Your task to perform on an android device: open app "Venmo" (install if not already installed) and go to login screen Image 0: 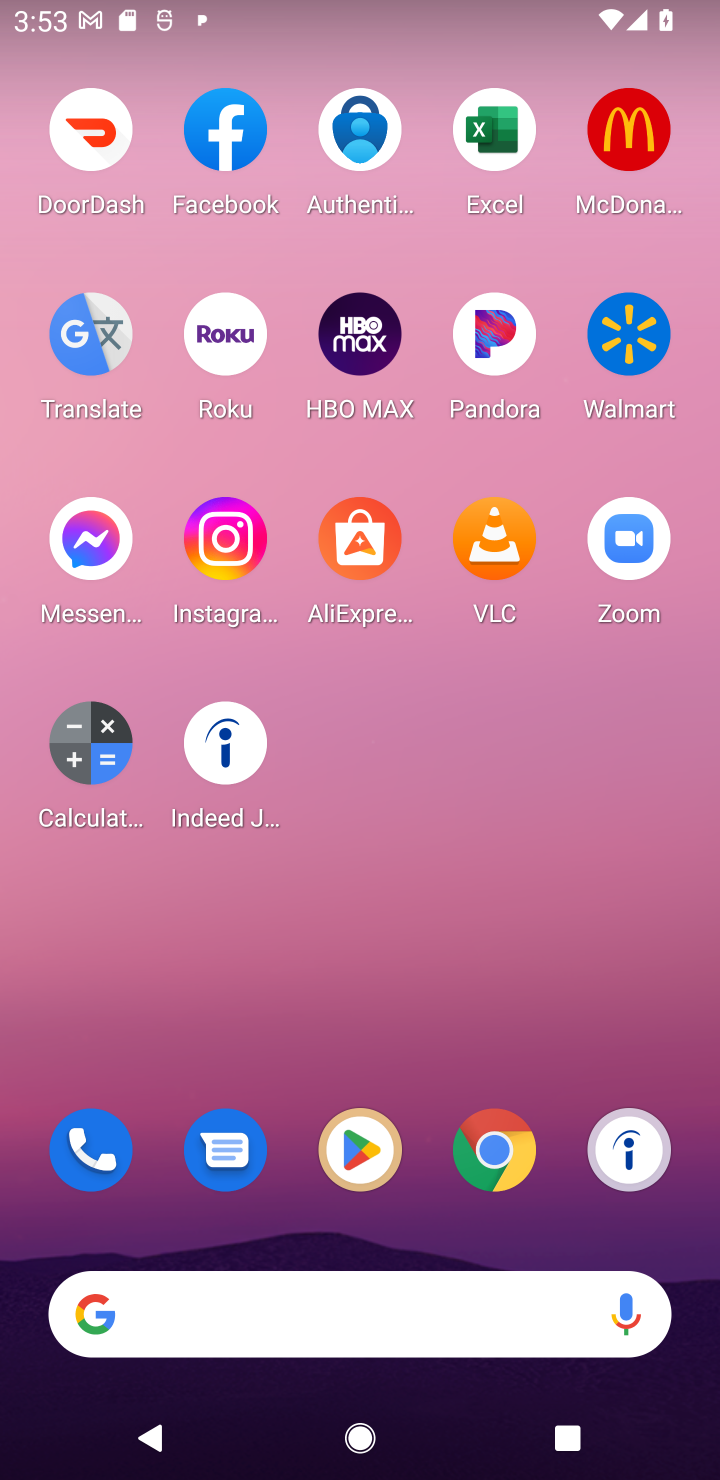
Step 0: click (366, 1146)
Your task to perform on an android device: open app "Venmo" (install if not already installed) and go to login screen Image 1: 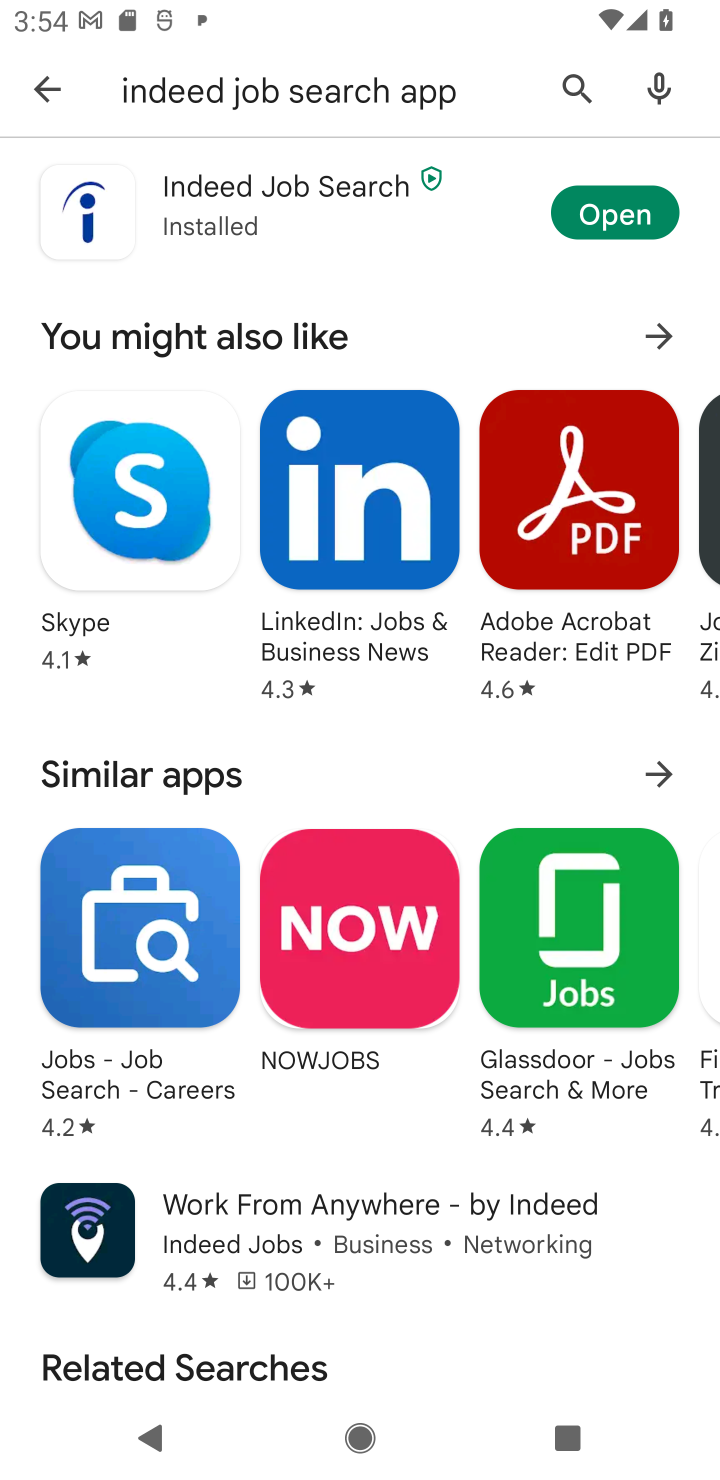
Step 1: click (566, 78)
Your task to perform on an android device: open app "Venmo" (install if not already installed) and go to login screen Image 2: 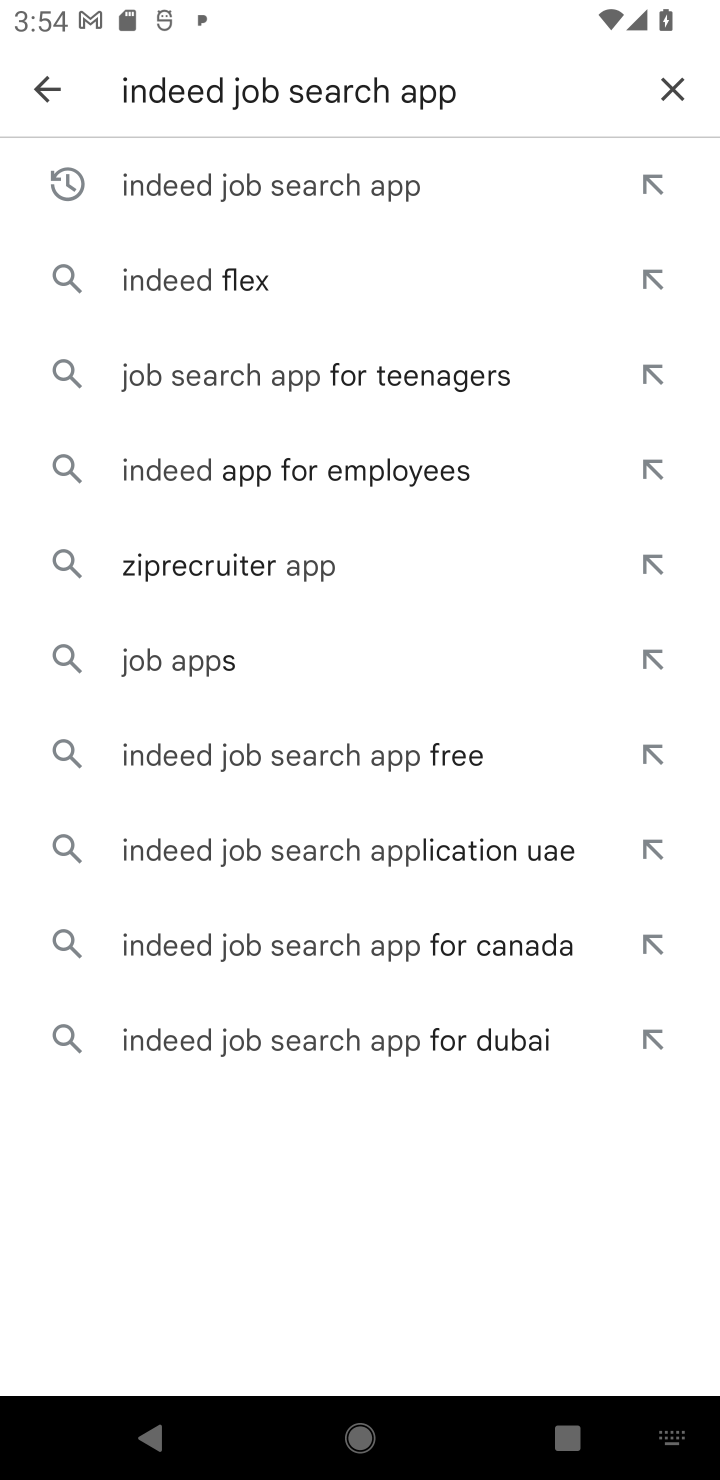
Step 2: click (673, 87)
Your task to perform on an android device: open app "Venmo" (install if not already installed) and go to login screen Image 3: 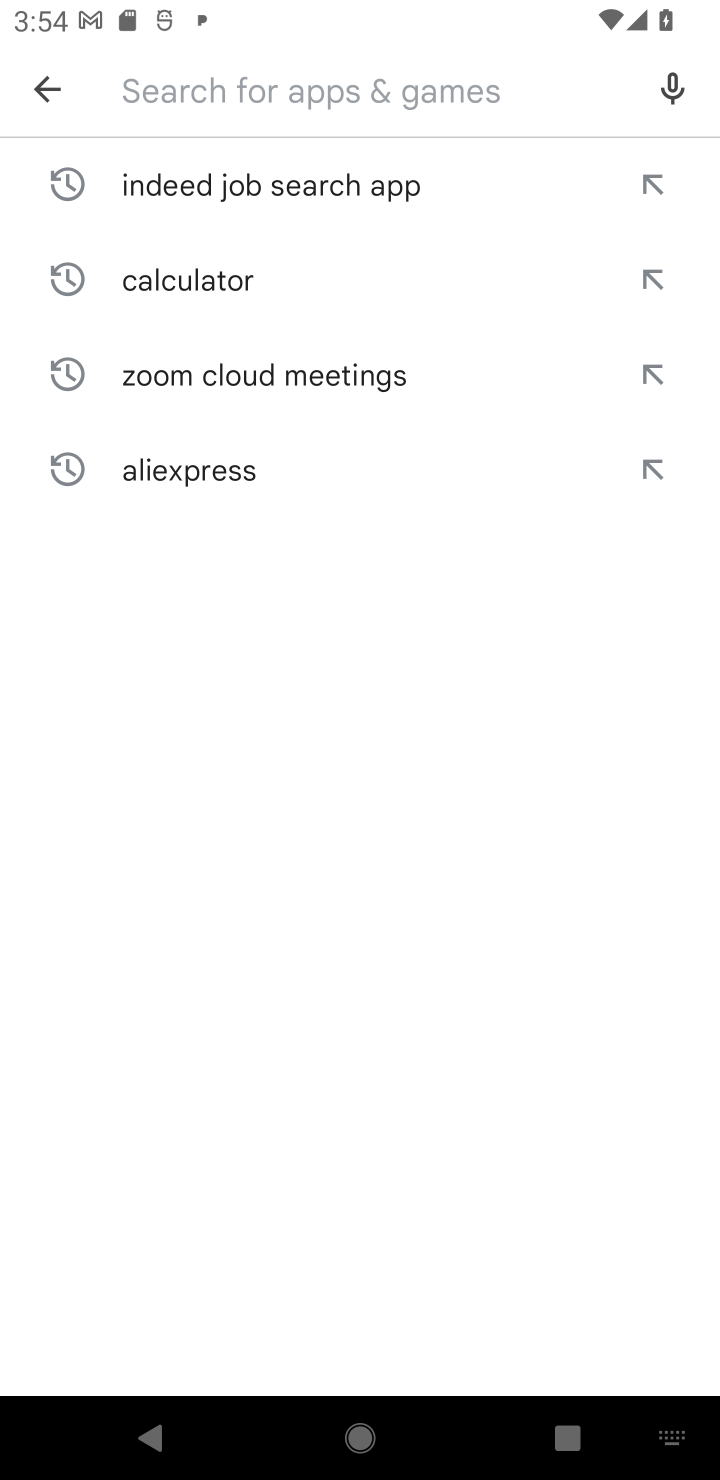
Step 3: type "Venmo"
Your task to perform on an android device: open app "Venmo" (install if not already installed) and go to login screen Image 4: 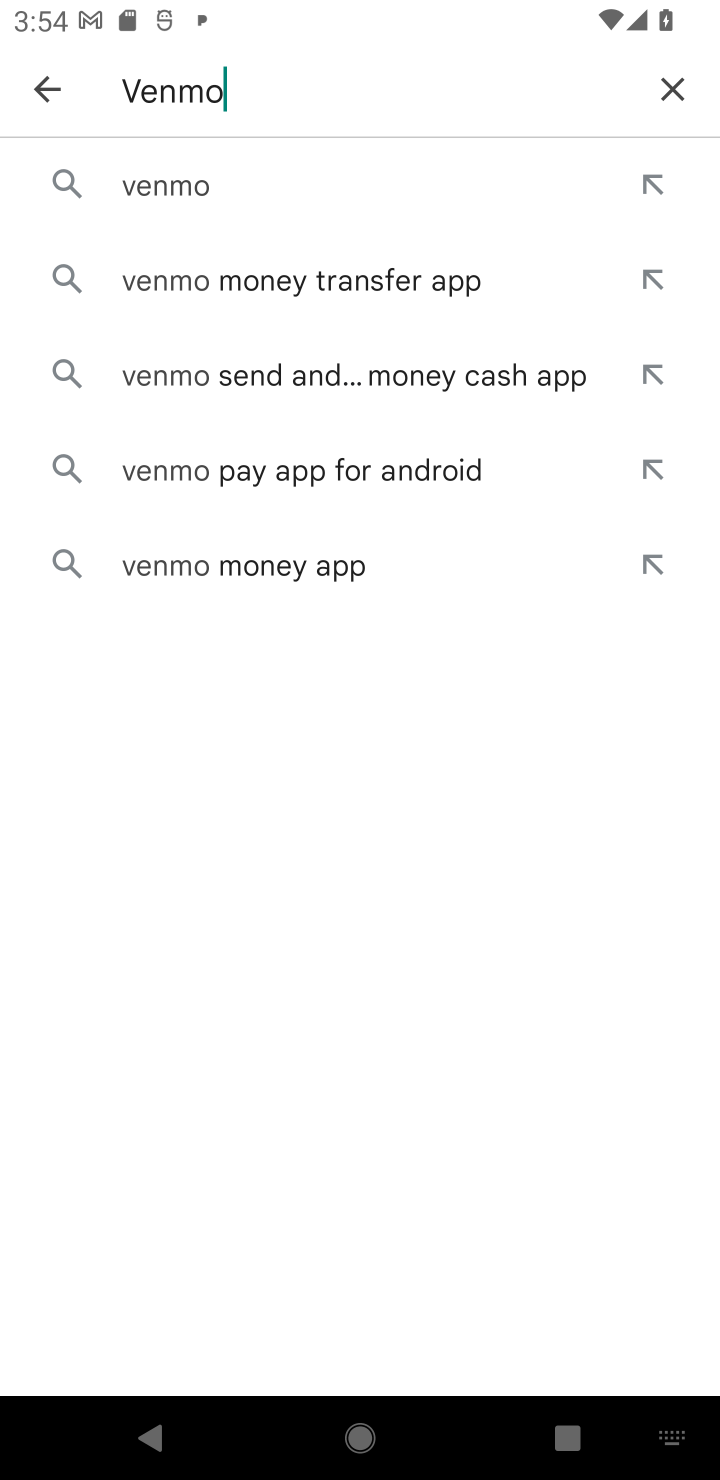
Step 4: click (156, 179)
Your task to perform on an android device: open app "Venmo" (install if not already installed) and go to login screen Image 5: 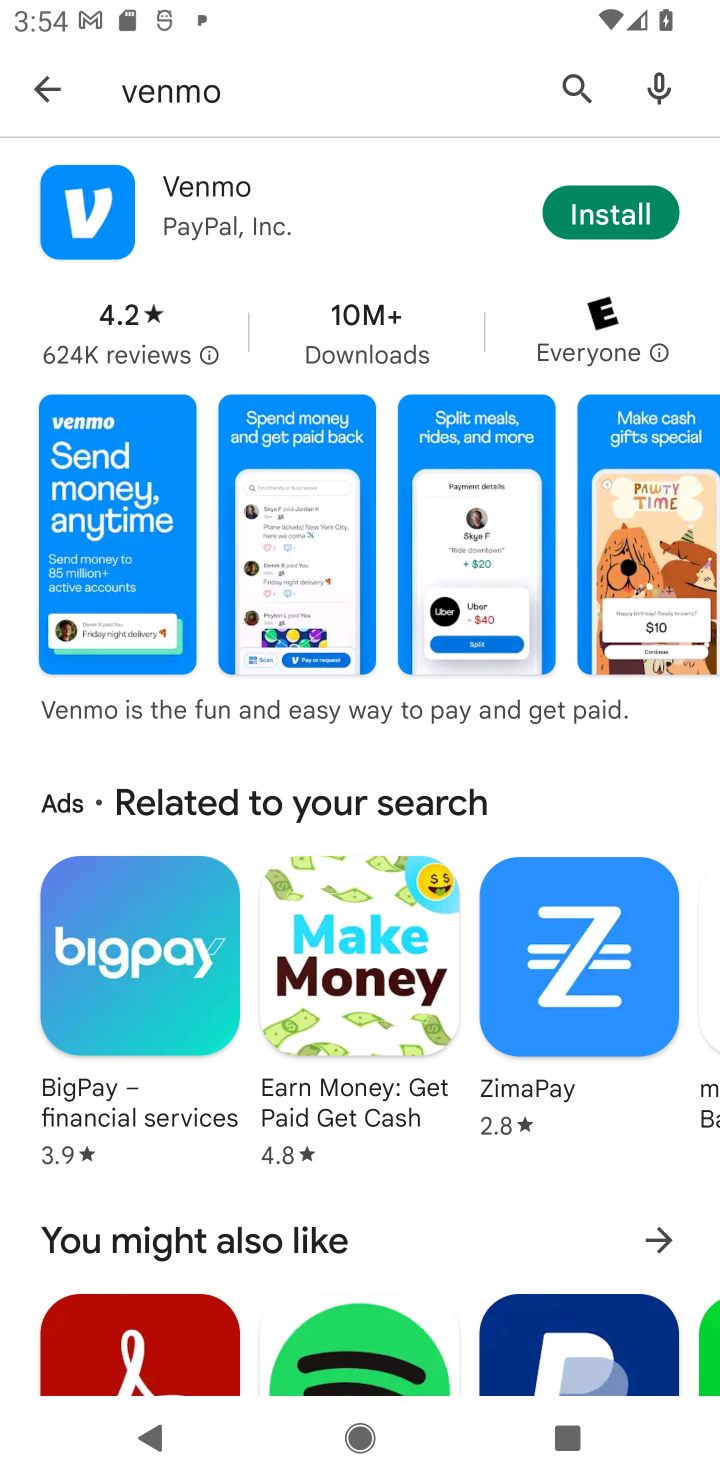
Step 5: click (611, 212)
Your task to perform on an android device: open app "Venmo" (install if not already installed) and go to login screen Image 6: 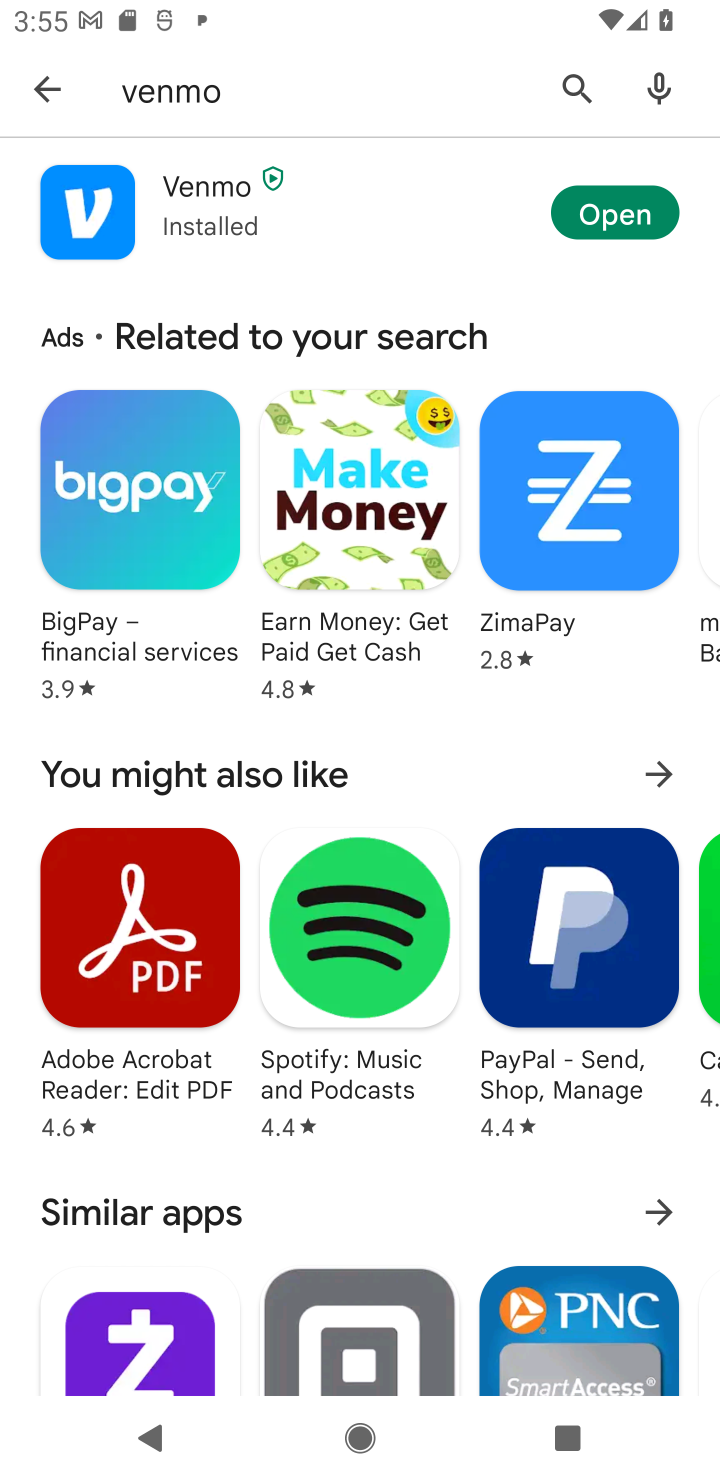
Step 6: click (608, 206)
Your task to perform on an android device: open app "Venmo" (install if not already installed) and go to login screen Image 7: 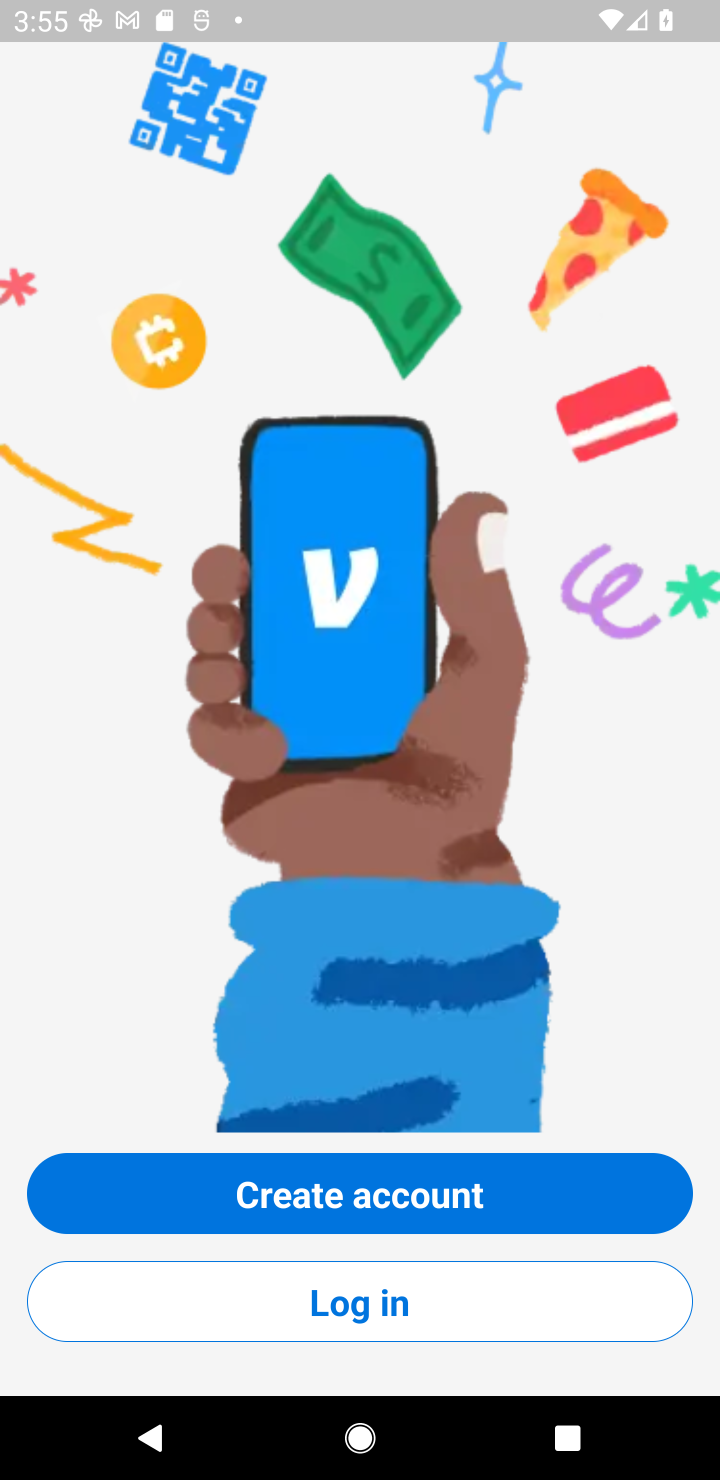
Step 7: task complete